Your task to perform on an android device: Go to internet settings Image 0: 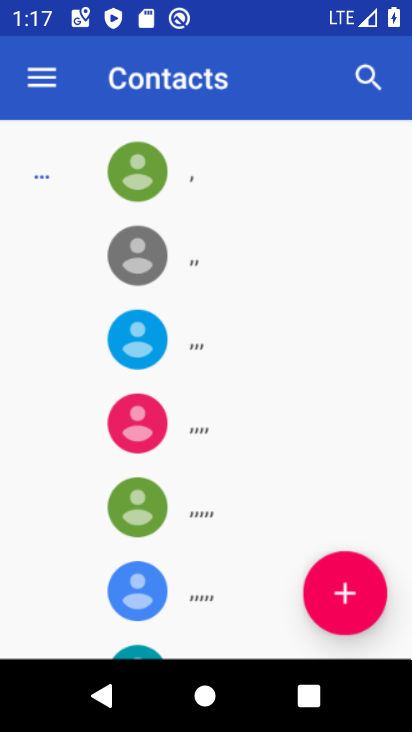
Step 0: drag from (175, 554) to (250, 136)
Your task to perform on an android device: Go to internet settings Image 1: 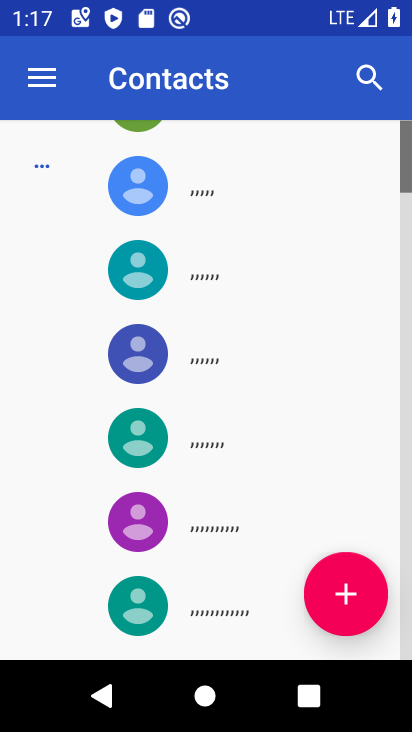
Step 1: press back button
Your task to perform on an android device: Go to internet settings Image 2: 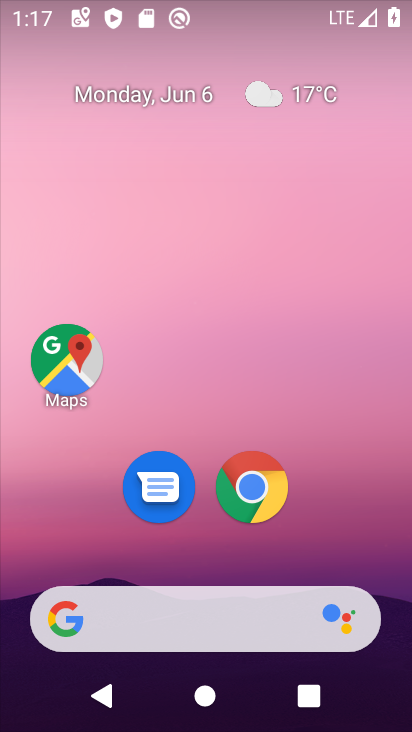
Step 2: drag from (169, 581) to (232, 48)
Your task to perform on an android device: Go to internet settings Image 3: 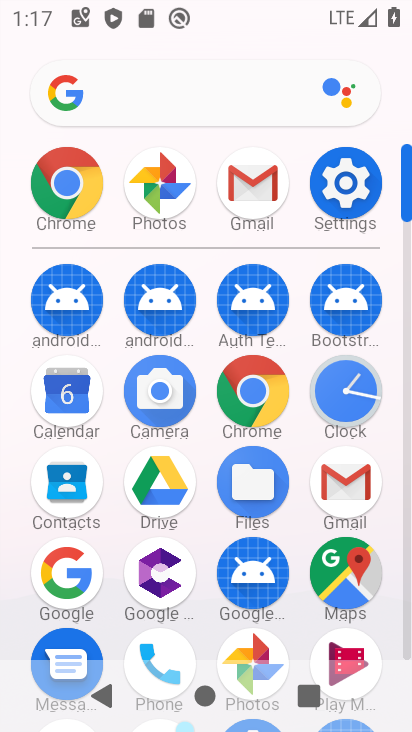
Step 3: click (349, 182)
Your task to perform on an android device: Go to internet settings Image 4: 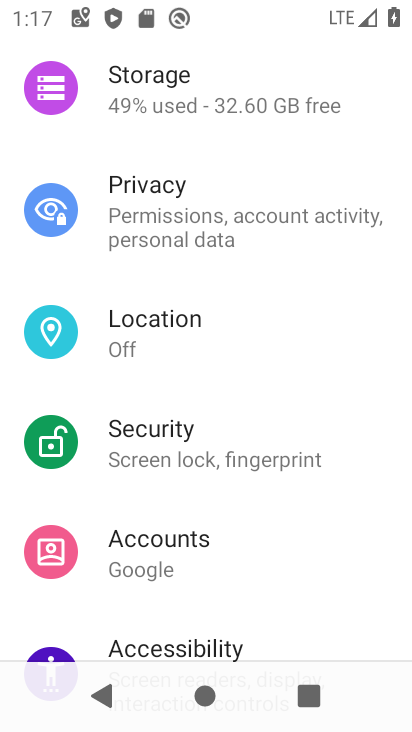
Step 4: drag from (246, 162) to (237, 705)
Your task to perform on an android device: Go to internet settings Image 5: 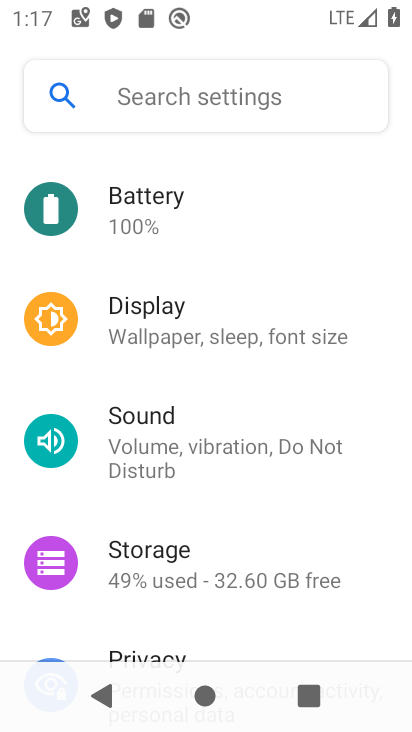
Step 5: drag from (206, 227) to (176, 693)
Your task to perform on an android device: Go to internet settings Image 6: 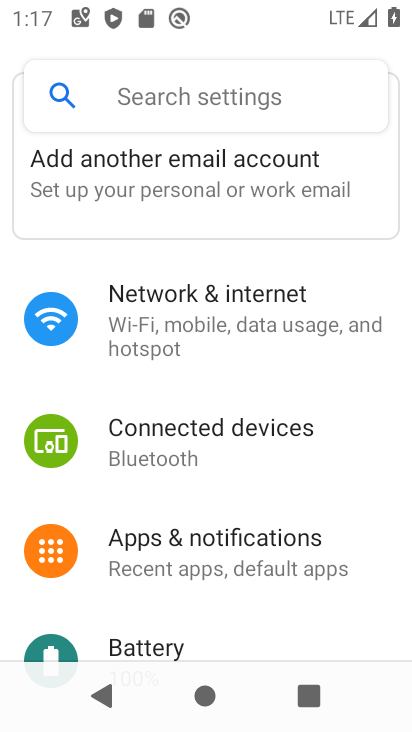
Step 6: click (184, 319)
Your task to perform on an android device: Go to internet settings Image 7: 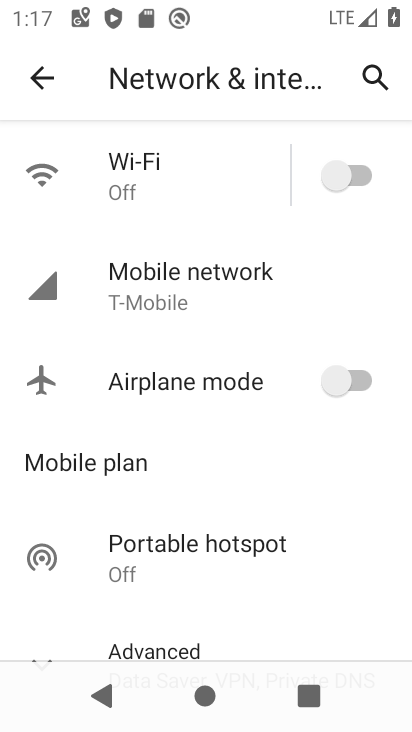
Step 7: task complete